Your task to perform on an android device: toggle javascript in the chrome app Image 0: 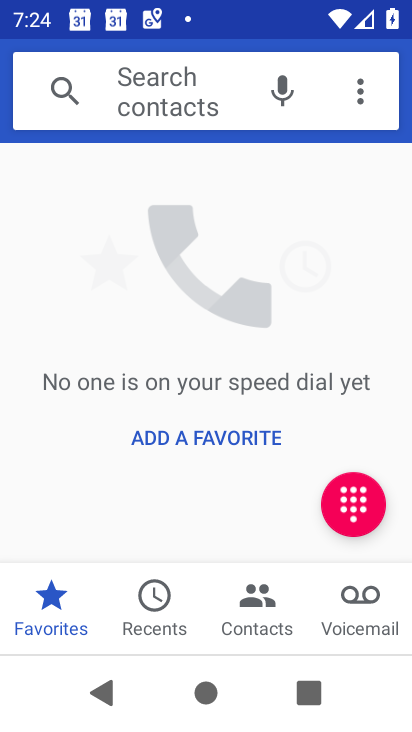
Step 0: press home button
Your task to perform on an android device: toggle javascript in the chrome app Image 1: 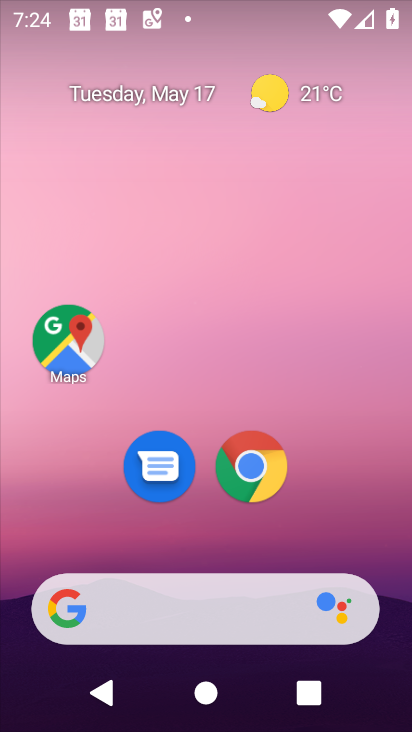
Step 1: click (246, 469)
Your task to perform on an android device: toggle javascript in the chrome app Image 2: 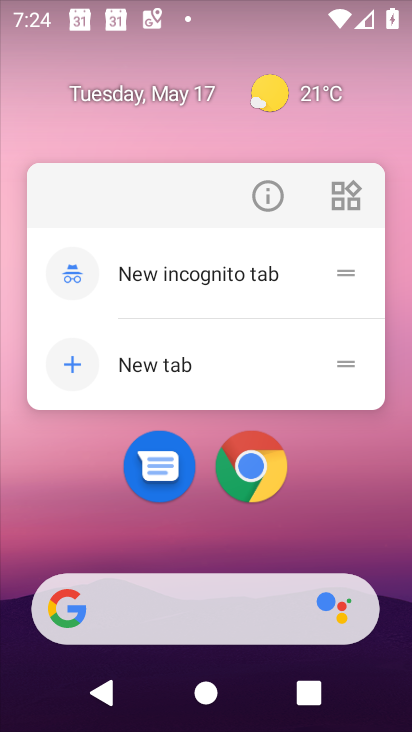
Step 2: click (242, 481)
Your task to perform on an android device: toggle javascript in the chrome app Image 3: 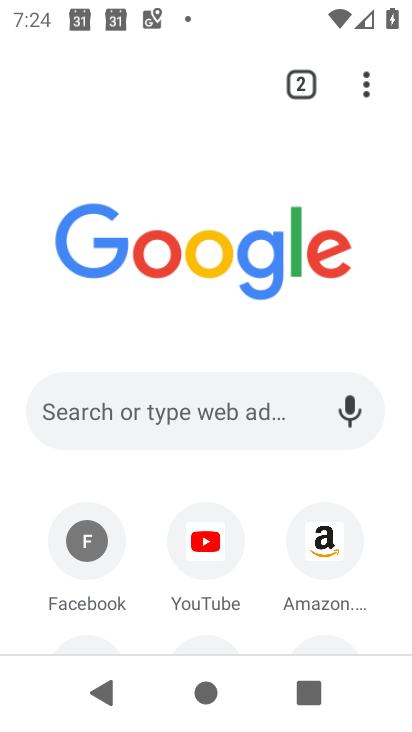
Step 3: drag from (367, 90) to (203, 525)
Your task to perform on an android device: toggle javascript in the chrome app Image 4: 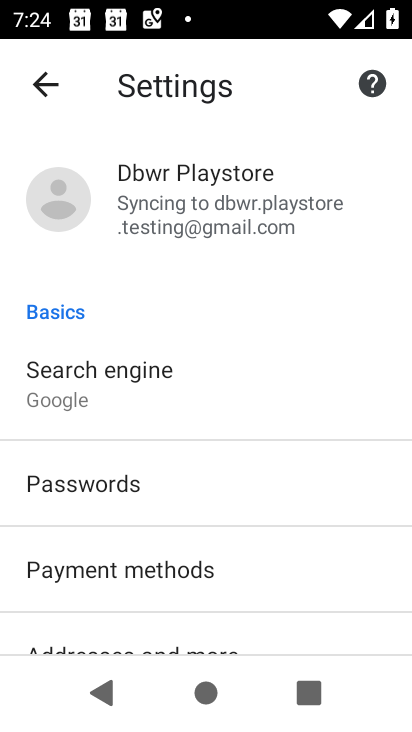
Step 4: drag from (243, 599) to (357, 305)
Your task to perform on an android device: toggle javascript in the chrome app Image 5: 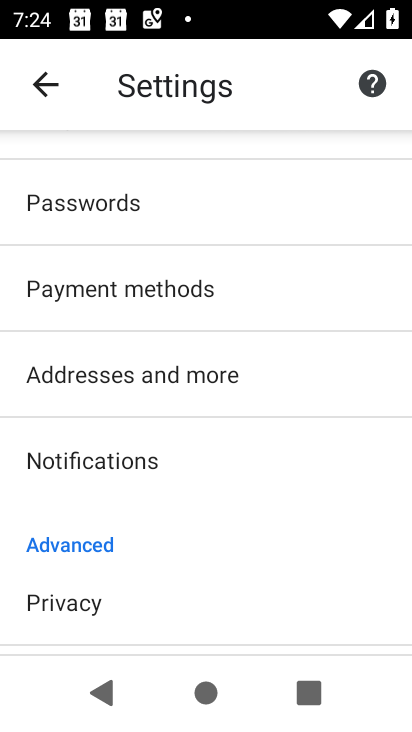
Step 5: drag from (145, 590) to (253, 381)
Your task to perform on an android device: toggle javascript in the chrome app Image 6: 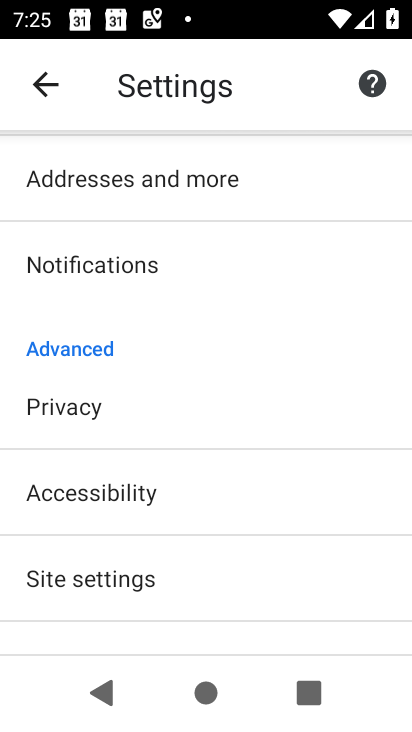
Step 6: click (112, 589)
Your task to perform on an android device: toggle javascript in the chrome app Image 7: 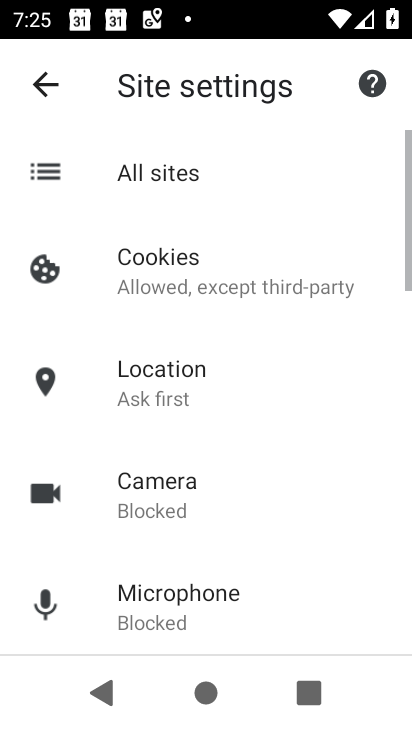
Step 7: drag from (192, 591) to (332, 243)
Your task to perform on an android device: toggle javascript in the chrome app Image 8: 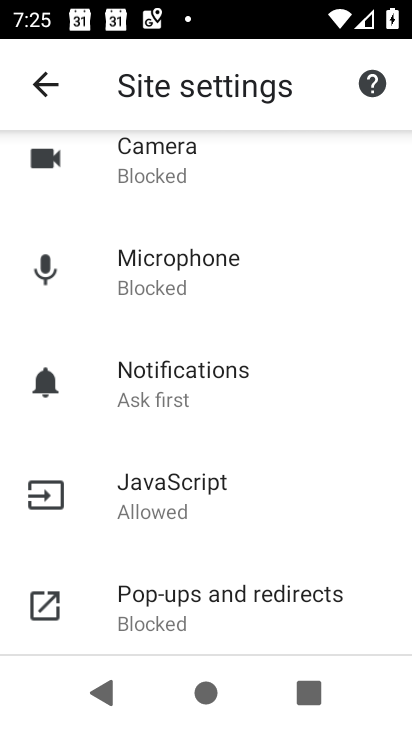
Step 8: click (208, 480)
Your task to perform on an android device: toggle javascript in the chrome app Image 9: 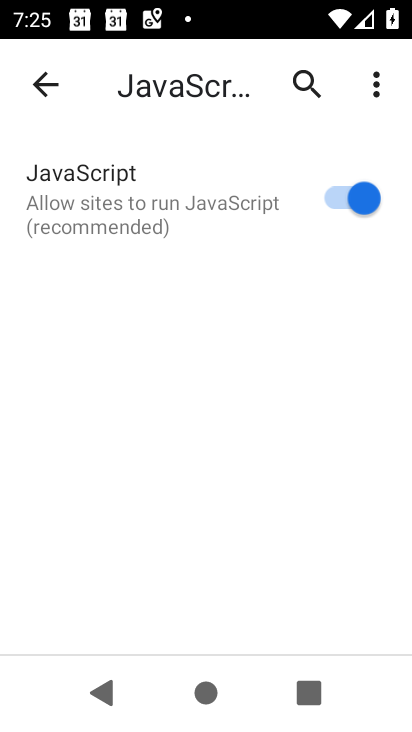
Step 9: click (337, 195)
Your task to perform on an android device: toggle javascript in the chrome app Image 10: 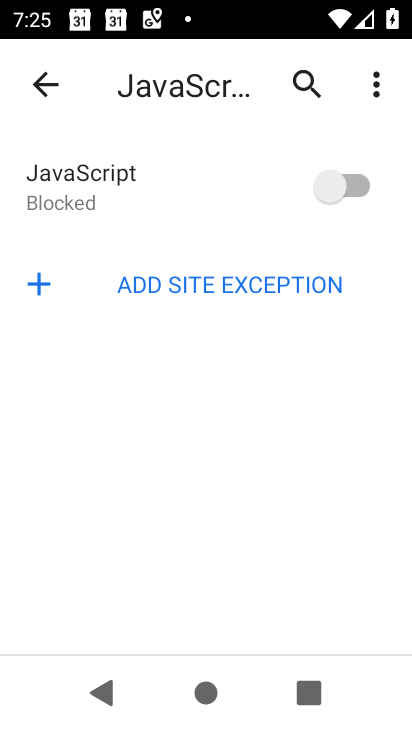
Step 10: task complete